Your task to perform on an android device: move a message to another label in the gmail app Image 0: 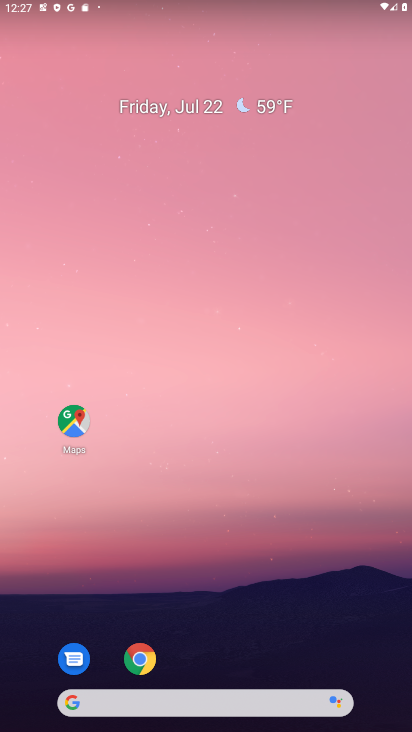
Step 0: drag from (195, 587) to (296, 57)
Your task to perform on an android device: move a message to another label in the gmail app Image 1: 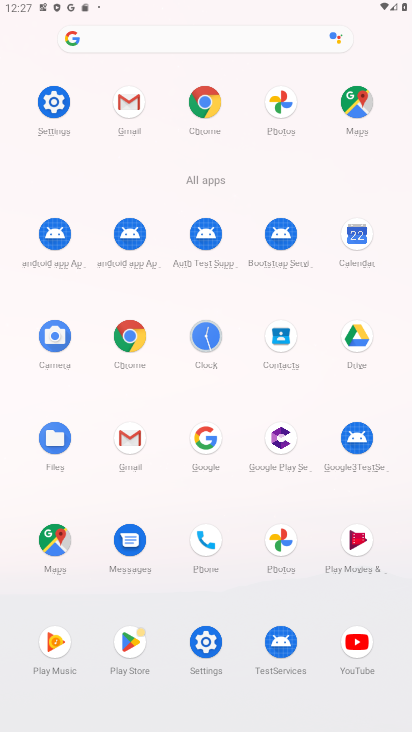
Step 1: click (127, 105)
Your task to perform on an android device: move a message to another label in the gmail app Image 2: 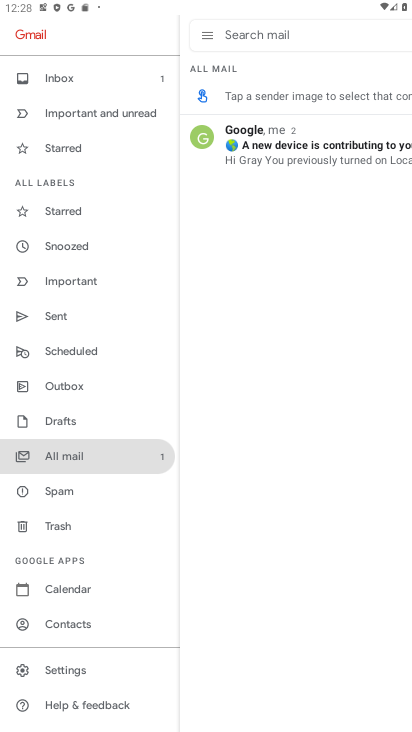
Step 2: click (252, 138)
Your task to perform on an android device: move a message to another label in the gmail app Image 3: 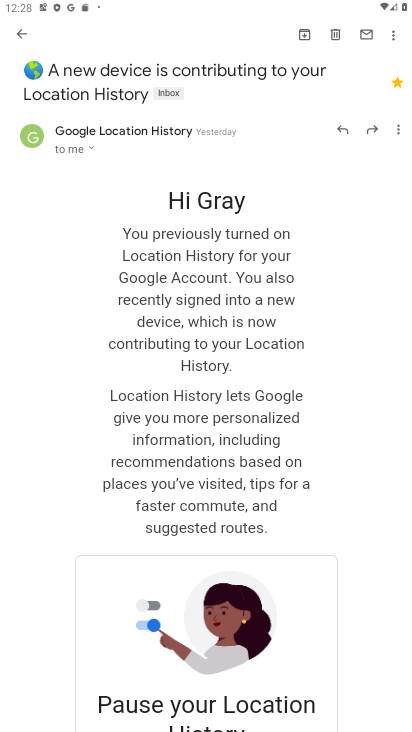
Step 3: click (388, 42)
Your task to perform on an android device: move a message to another label in the gmail app Image 4: 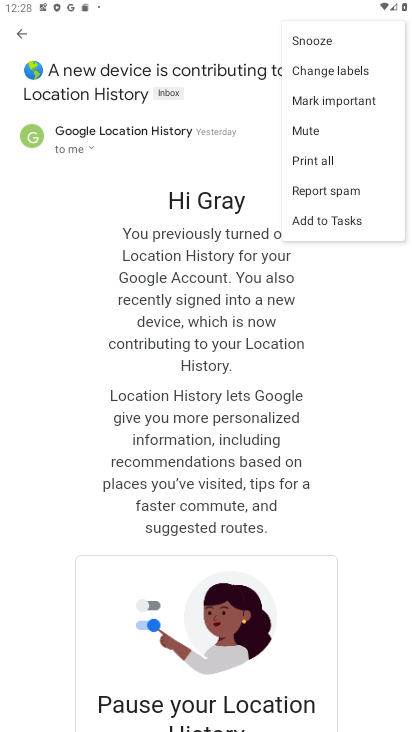
Step 4: click (317, 72)
Your task to perform on an android device: move a message to another label in the gmail app Image 5: 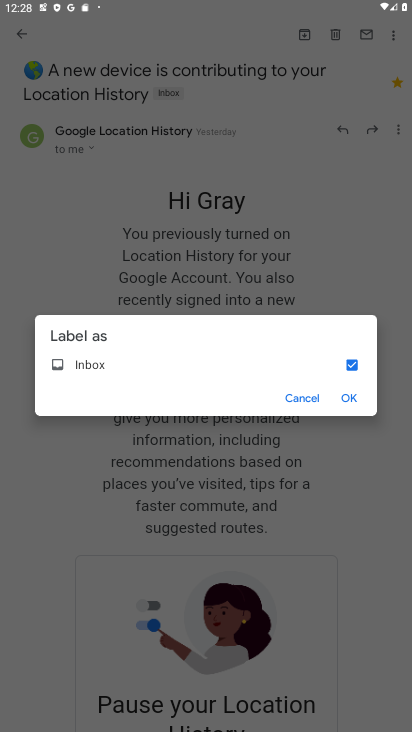
Step 5: click (354, 360)
Your task to perform on an android device: move a message to another label in the gmail app Image 6: 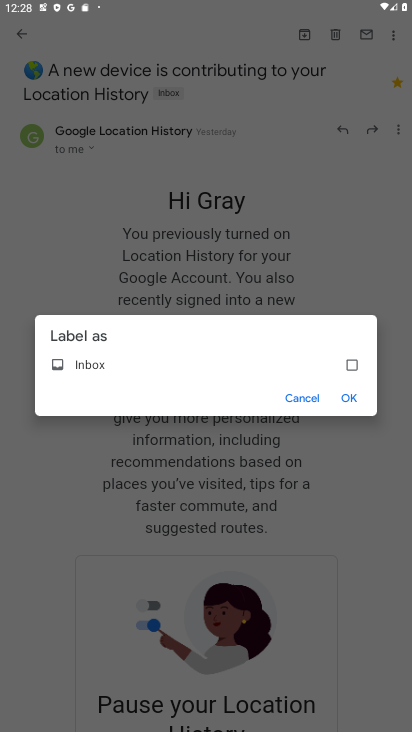
Step 6: click (354, 401)
Your task to perform on an android device: move a message to another label in the gmail app Image 7: 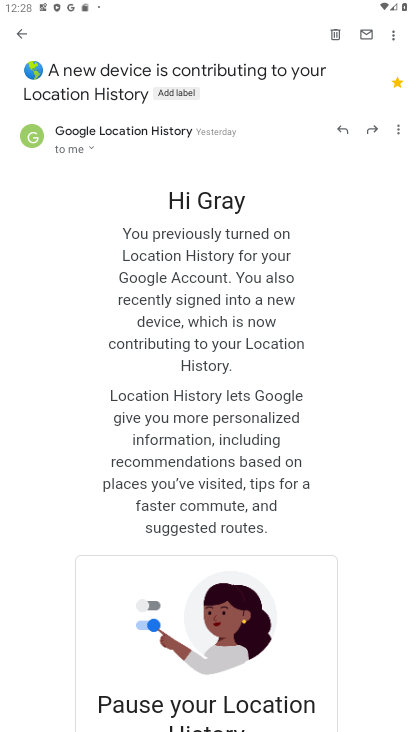
Step 7: task complete